Your task to perform on an android device: Do I have any events this weekend? Image 0: 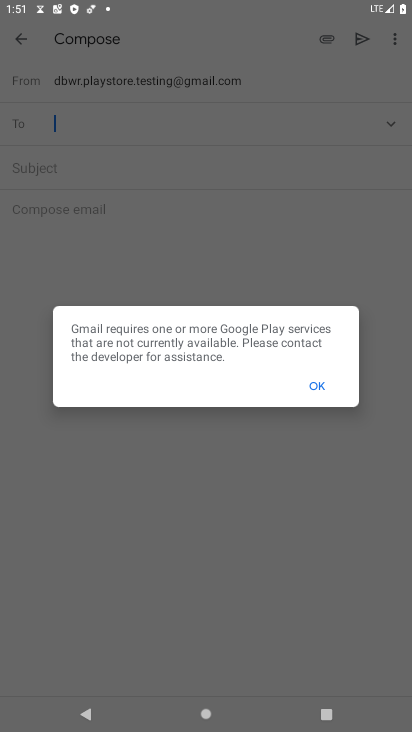
Step 0: press home button
Your task to perform on an android device: Do I have any events this weekend? Image 1: 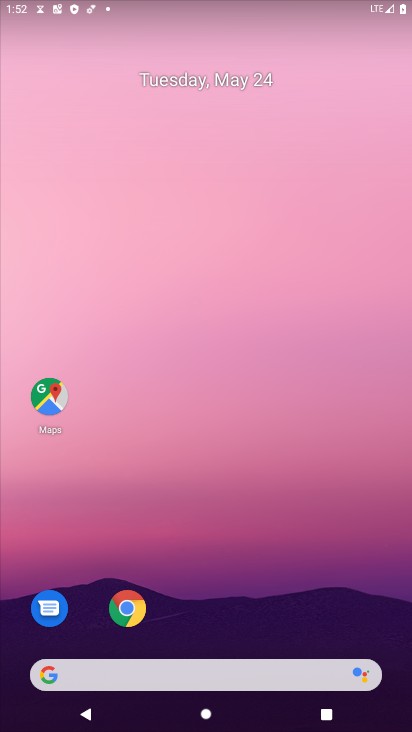
Step 1: drag from (283, 609) to (3, 230)
Your task to perform on an android device: Do I have any events this weekend? Image 2: 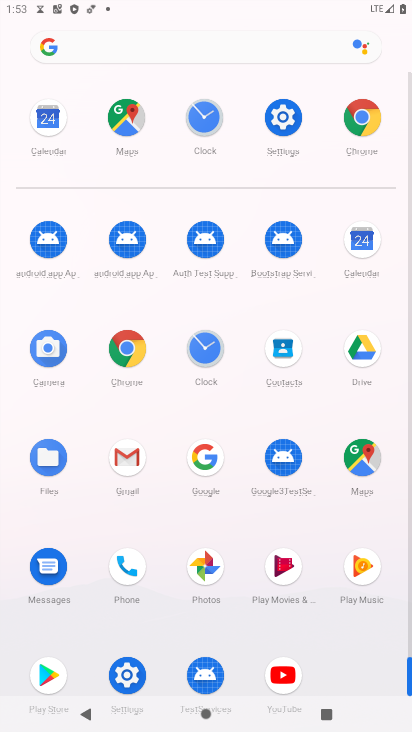
Step 2: click (353, 239)
Your task to perform on an android device: Do I have any events this weekend? Image 3: 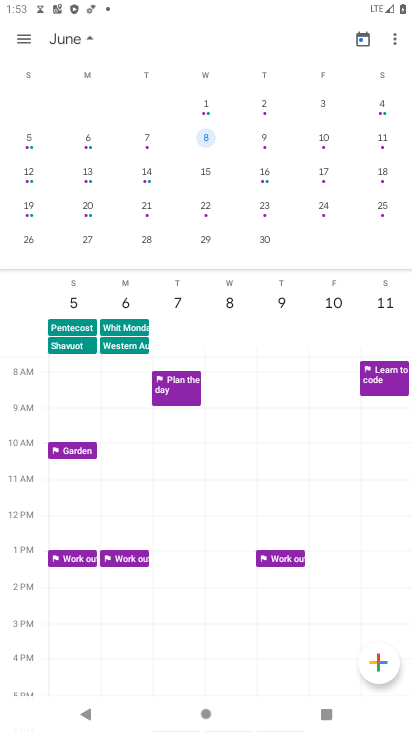
Step 3: click (20, 42)
Your task to perform on an android device: Do I have any events this weekend? Image 4: 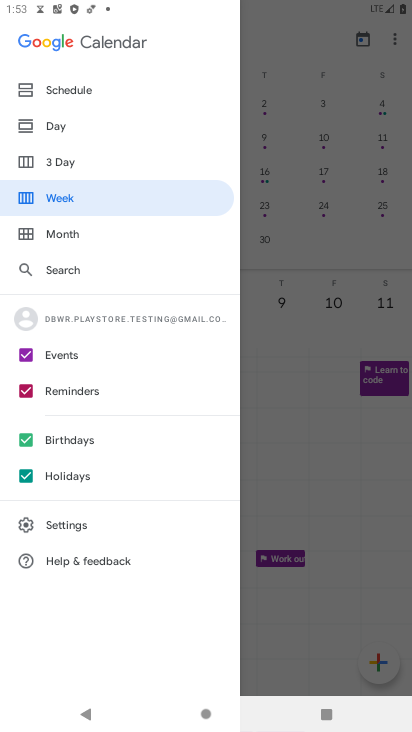
Step 4: click (24, 479)
Your task to perform on an android device: Do I have any events this weekend? Image 5: 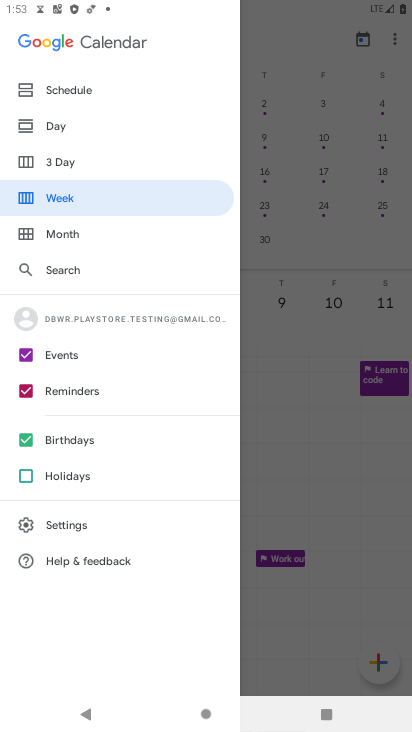
Step 5: click (23, 440)
Your task to perform on an android device: Do I have any events this weekend? Image 6: 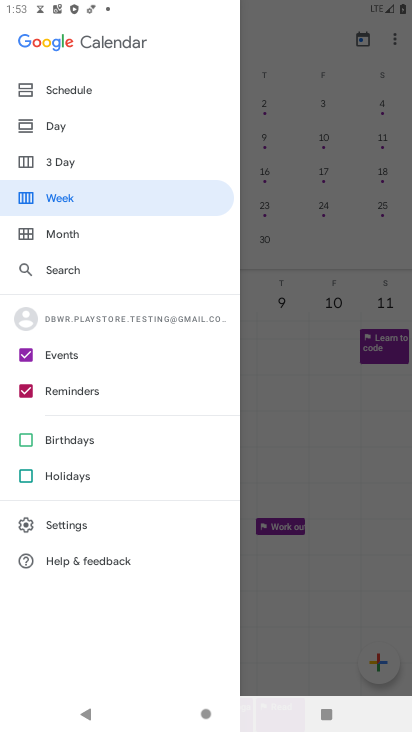
Step 6: click (24, 390)
Your task to perform on an android device: Do I have any events this weekend? Image 7: 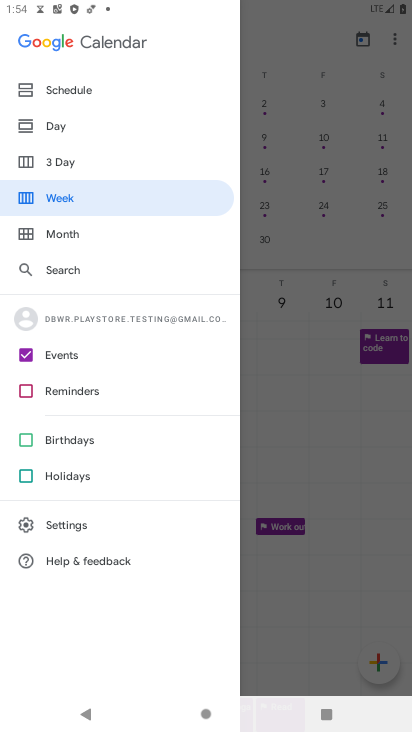
Step 7: click (65, 157)
Your task to perform on an android device: Do I have any events this weekend? Image 8: 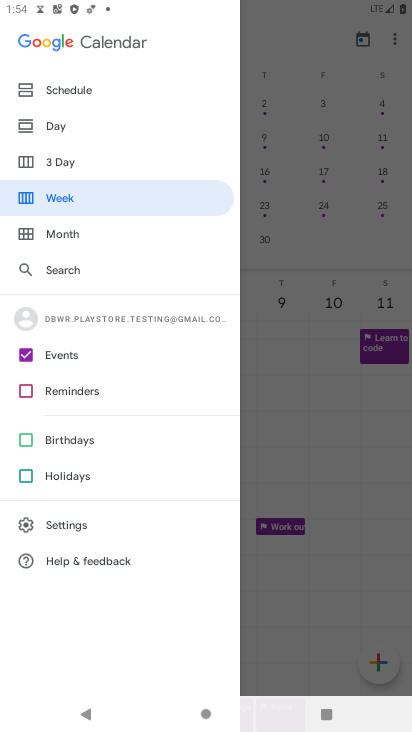
Step 8: click (65, 157)
Your task to perform on an android device: Do I have any events this weekend? Image 9: 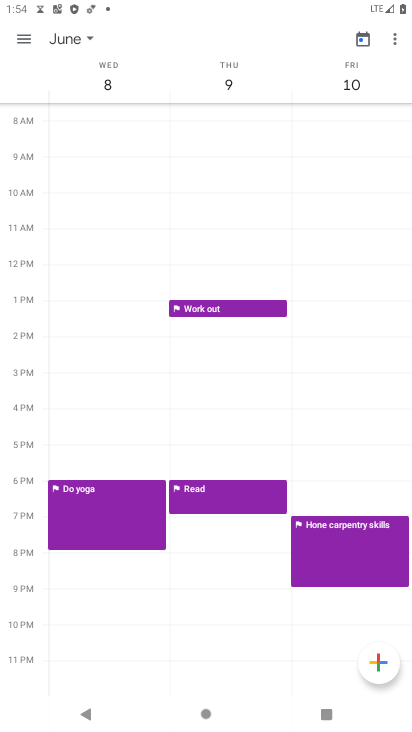
Step 9: click (78, 33)
Your task to perform on an android device: Do I have any events this weekend? Image 10: 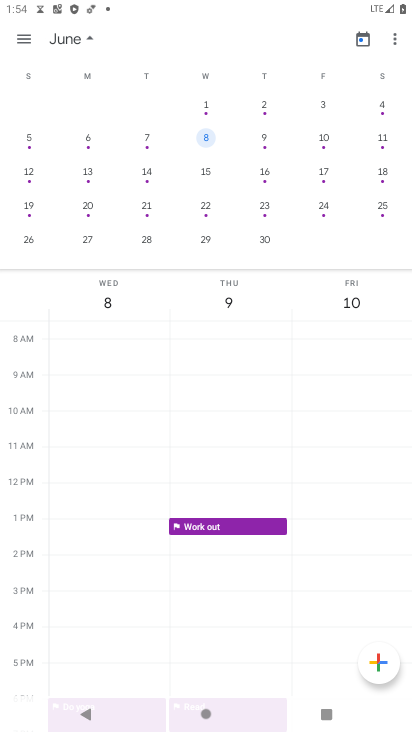
Step 10: drag from (55, 151) to (407, 128)
Your task to perform on an android device: Do I have any events this weekend? Image 11: 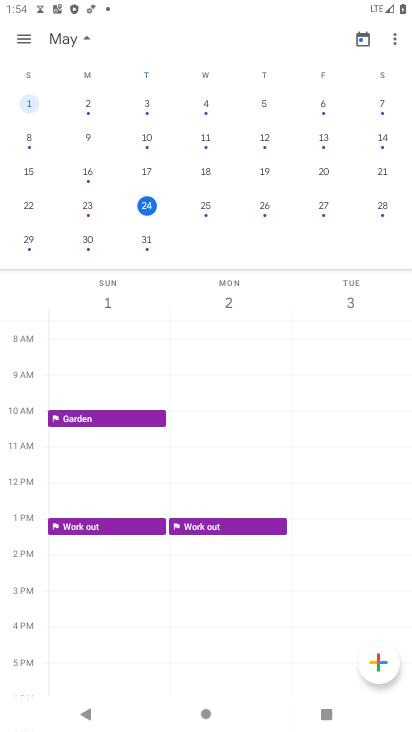
Step 11: click (383, 213)
Your task to perform on an android device: Do I have any events this weekend? Image 12: 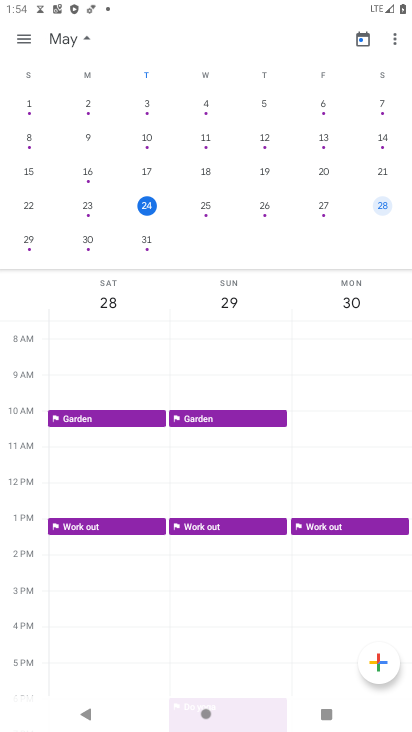
Step 12: task complete